Your task to perform on an android device: empty trash in google photos Image 0: 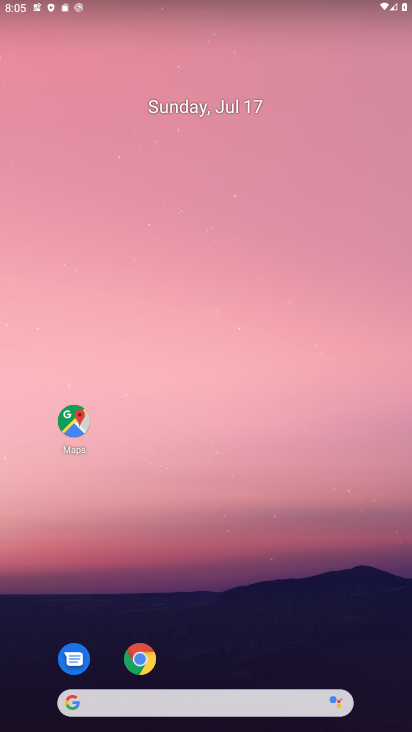
Step 0: drag from (205, 674) to (202, 230)
Your task to perform on an android device: empty trash in google photos Image 1: 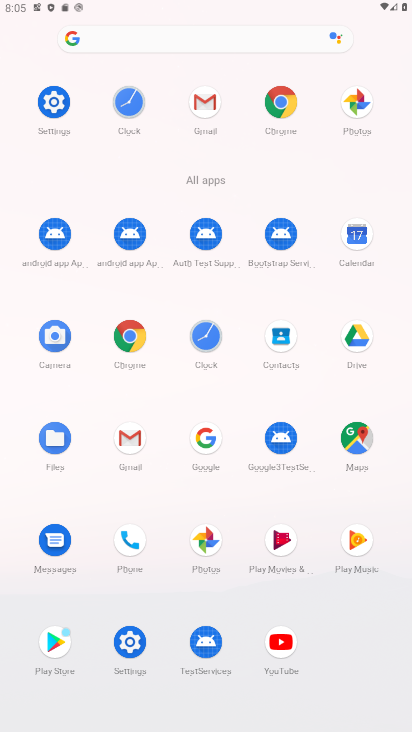
Step 1: click (209, 548)
Your task to perform on an android device: empty trash in google photos Image 2: 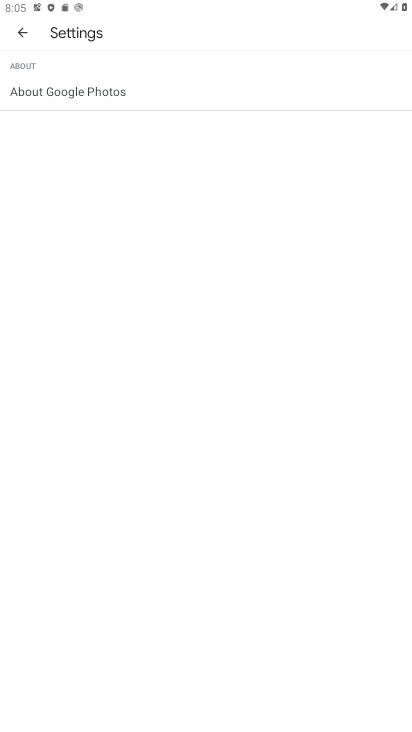
Step 2: click (26, 31)
Your task to perform on an android device: empty trash in google photos Image 3: 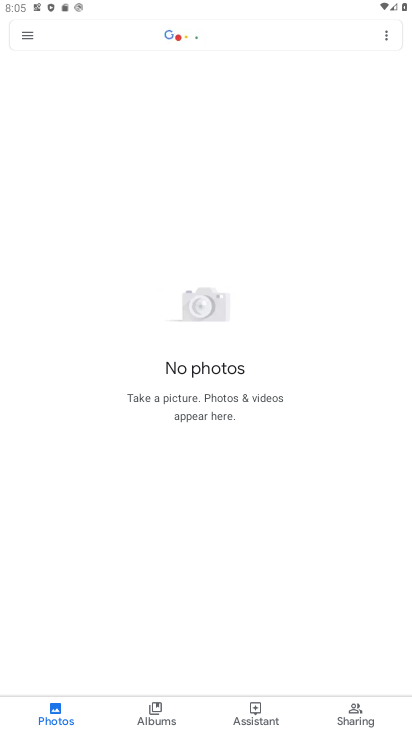
Step 3: click (31, 33)
Your task to perform on an android device: empty trash in google photos Image 4: 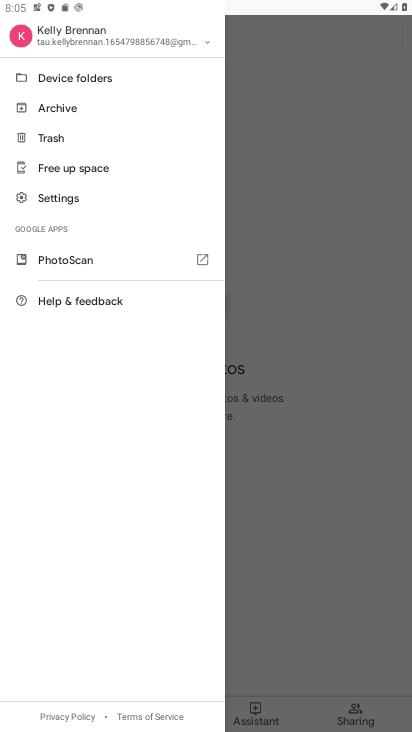
Step 4: click (56, 140)
Your task to perform on an android device: empty trash in google photos Image 5: 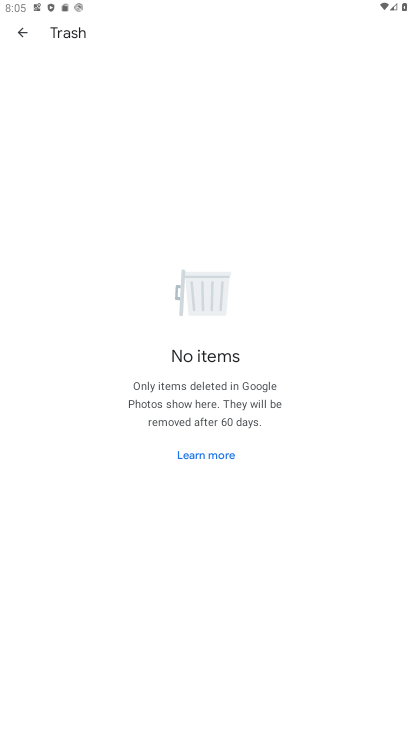
Step 5: task complete